Your task to perform on an android device: check data usage Image 0: 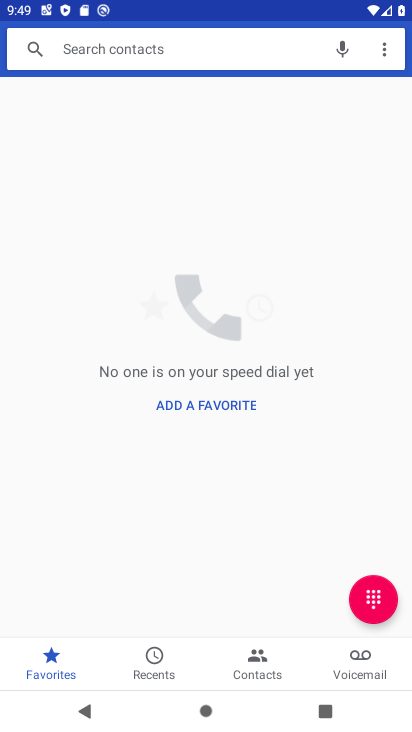
Step 0: press home button
Your task to perform on an android device: check data usage Image 1: 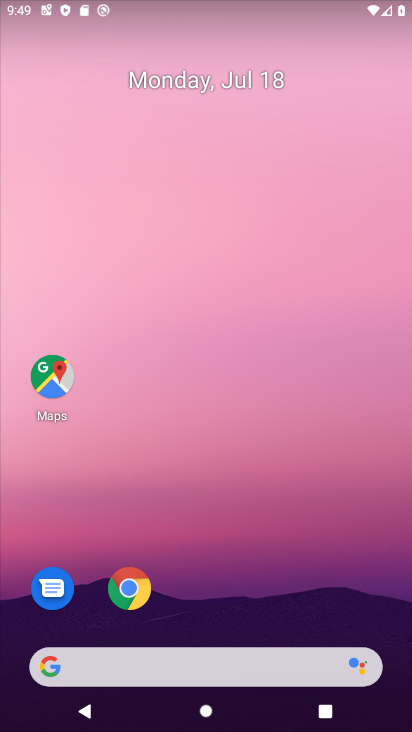
Step 1: drag from (323, 3) to (207, 607)
Your task to perform on an android device: check data usage Image 2: 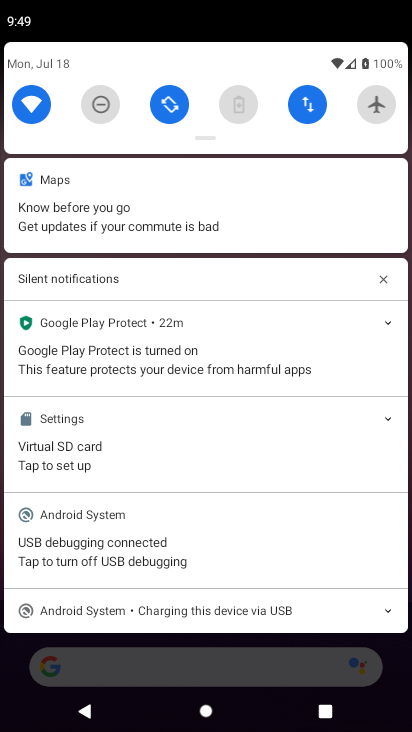
Step 2: click (320, 108)
Your task to perform on an android device: check data usage Image 3: 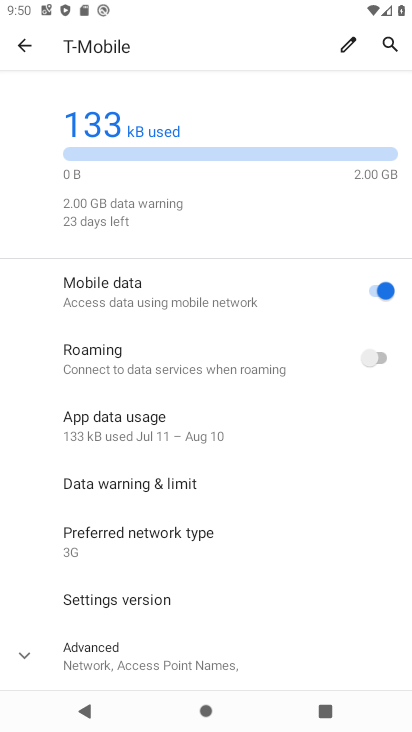
Step 3: task complete